Your task to perform on an android device: open app "Google Find My Device" (install if not already installed) Image 0: 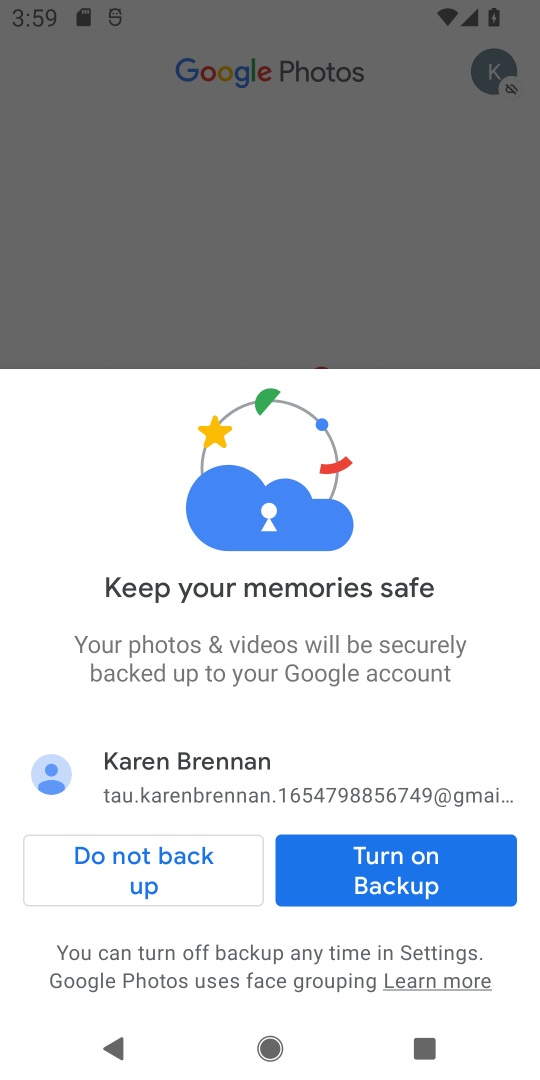
Step 0: press home button
Your task to perform on an android device: open app "Google Find My Device" (install if not already installed) Image 1: 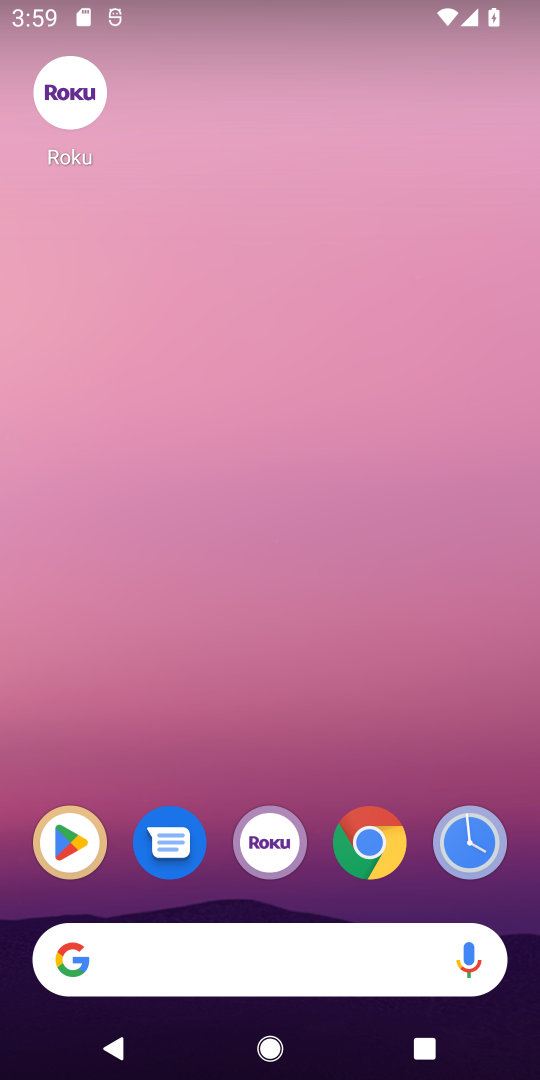
Step 1: drag from (210, 743) to (291, 30)
Your task to perform on an android device: open app "Google Find My Device" (install if not already installed) Image 2: 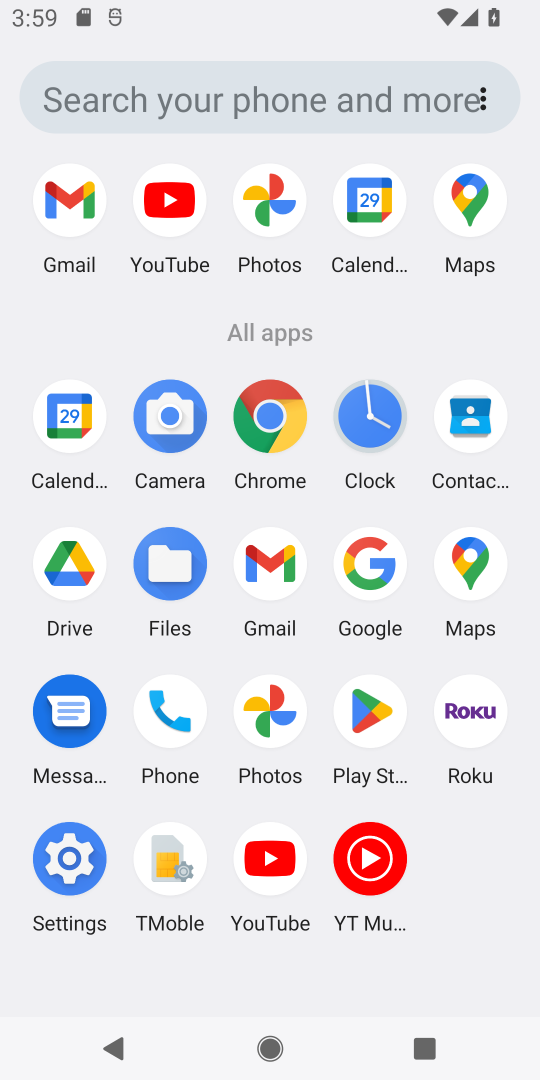
Step 2: click (357, 701)
Your task to perform on an android device: open app "Google Find My Device" (install if not already installed) Image 3: 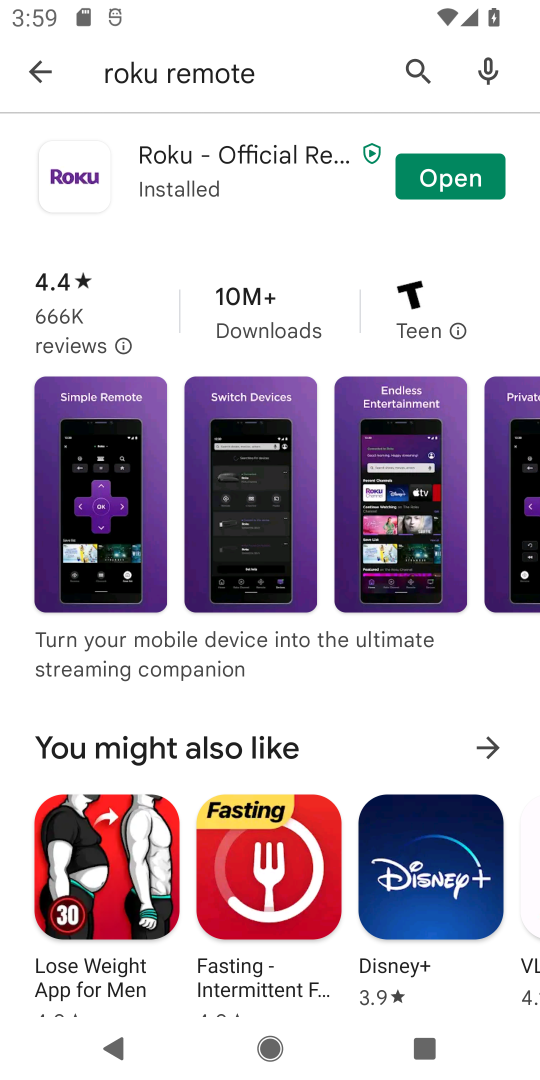
Step 3: click (409, 61)
Your task to perform on an android device: open app "Google Find My Device" (install if not already installed) Image 4: 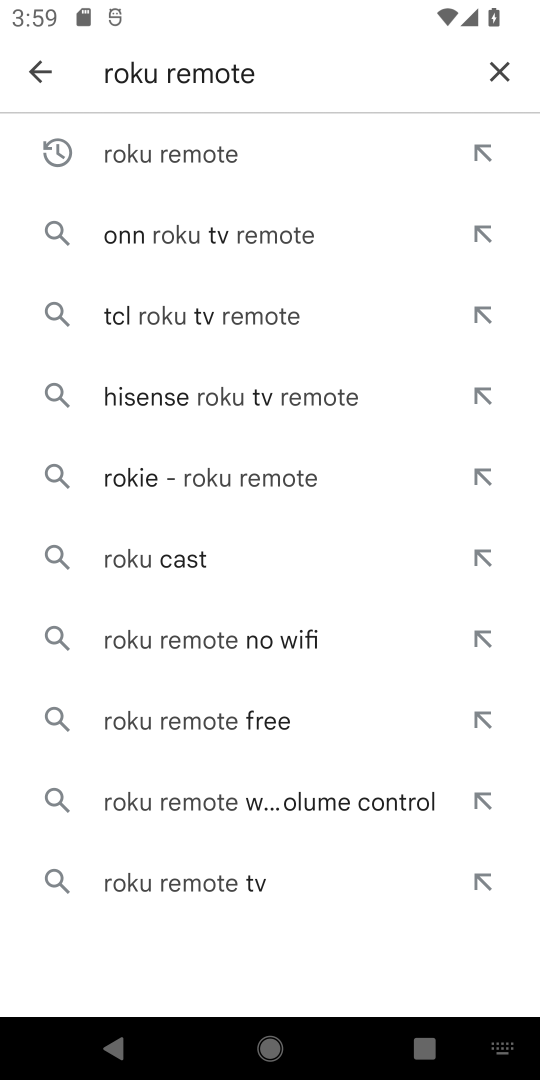
Step 4: click (500, 78)
Your task to perform on an android device: open app "Google Find My Device" (install if not already installed) Image 5: 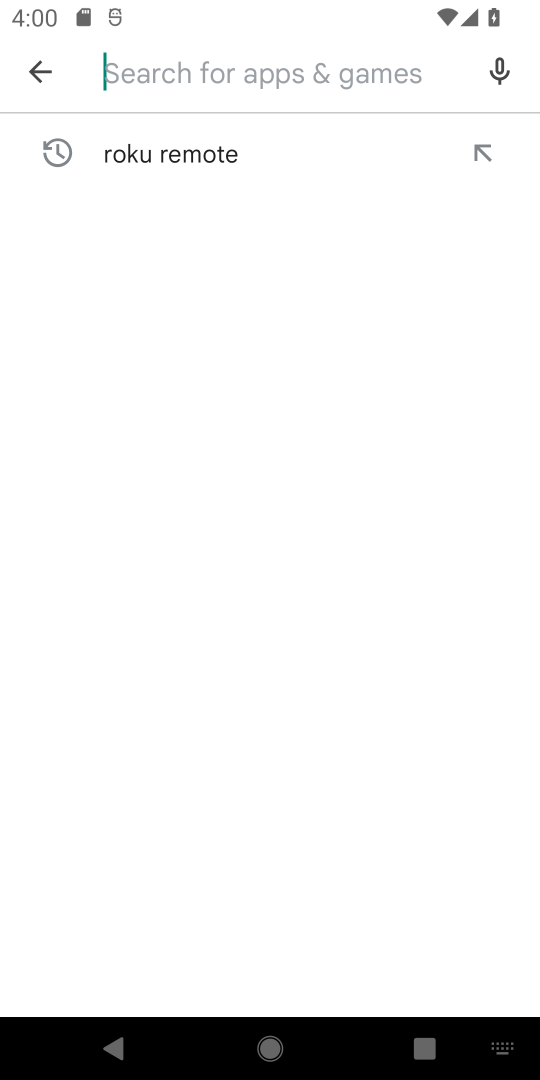
Step 5: click (130, 88)
Your task to perform on an android device: open app "Google Find My Device" (install if not already installed) Image 6: 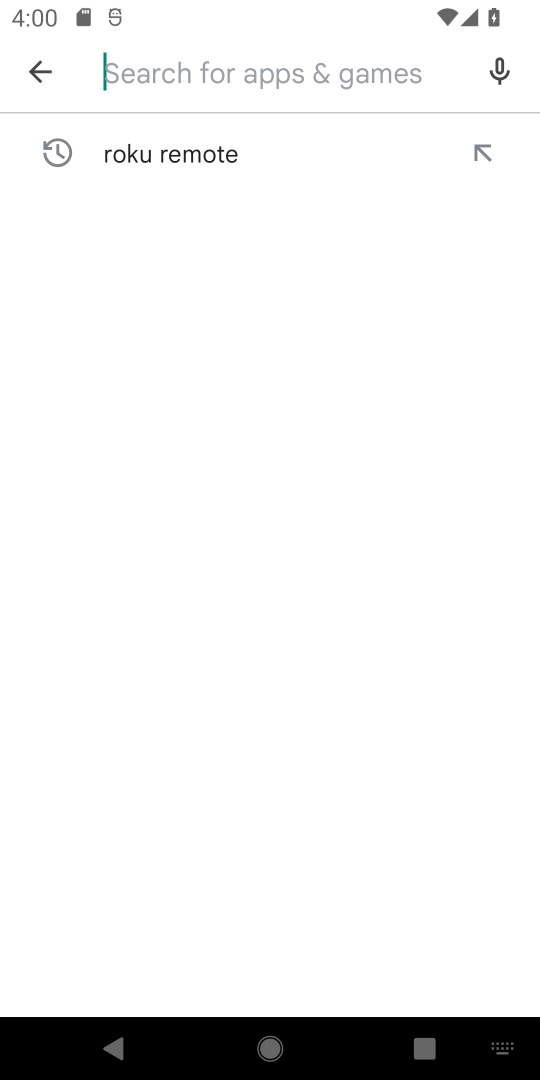
Step 6: click (308, 100)
Your task to perform on an android device: open app "Google Find My Device" (install if not already installed) Image 7: 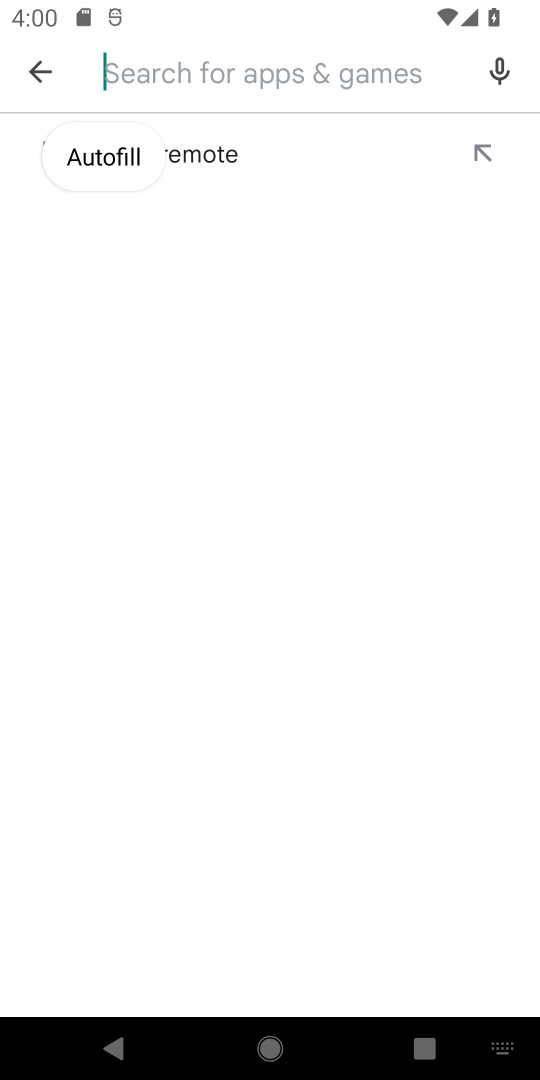
Step 7: click (266, 67)
Your task to perform on an android device: open app "Google Find My Device" (install if not already installed) Image 8: 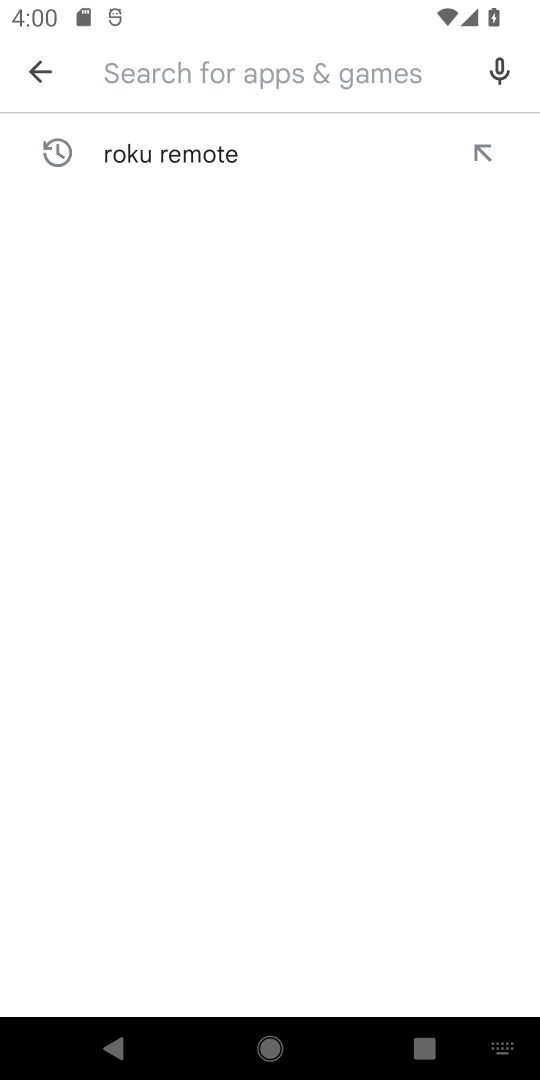
Step 8: type "Google Find My Device"
Your task to perform on an android device: open app "Google Find My Device" (install if not already installed) Image 9: 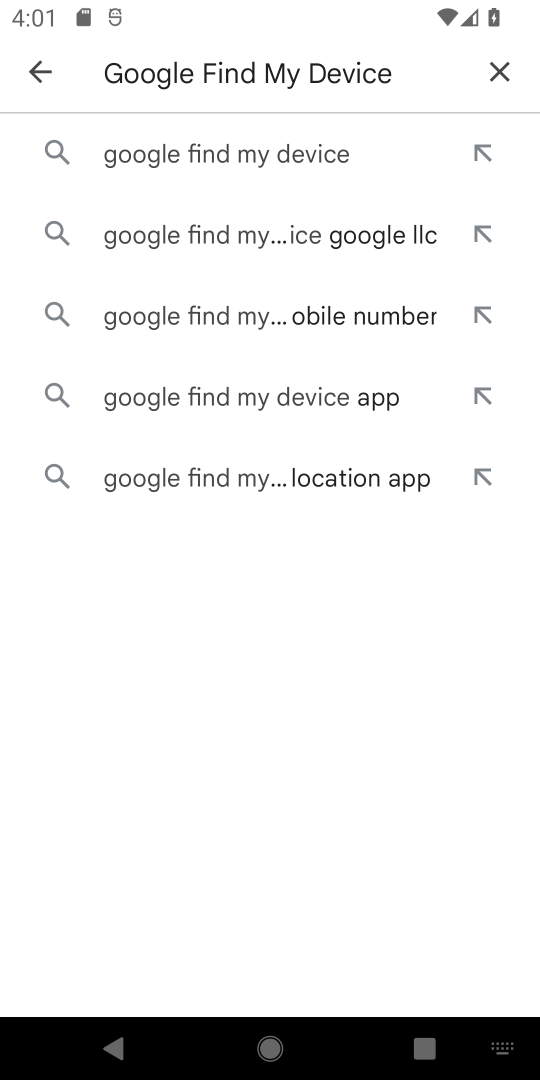
Step 9: click (278, 152)
Your task to perform on an android device: open app "Google Find My Device" (install if not already installed) Image 10: 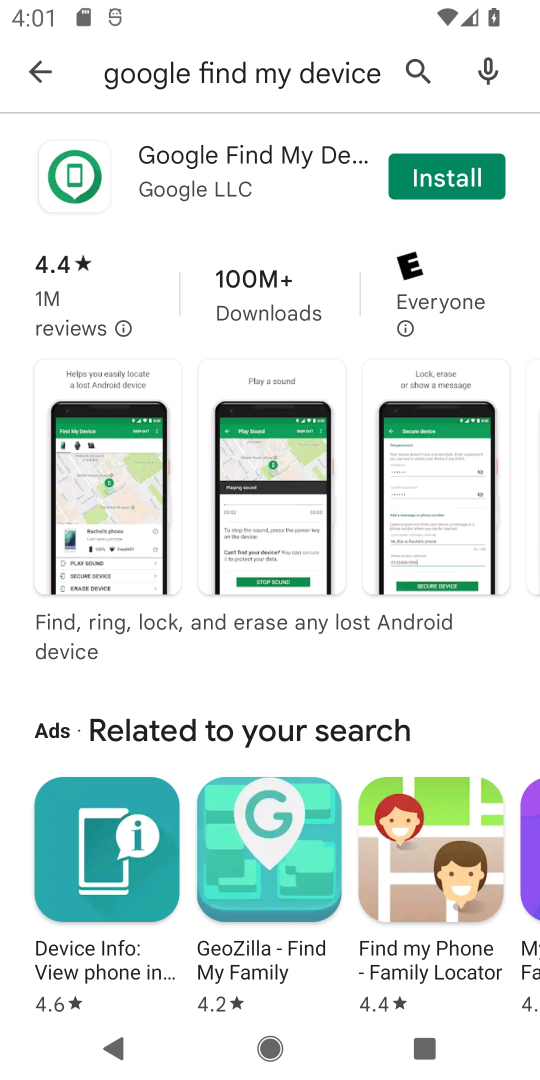
Step 10: click (449, 174)
Your task to perform on an android device: open app "Google Find My Device" (install if not already installed) Image 11: 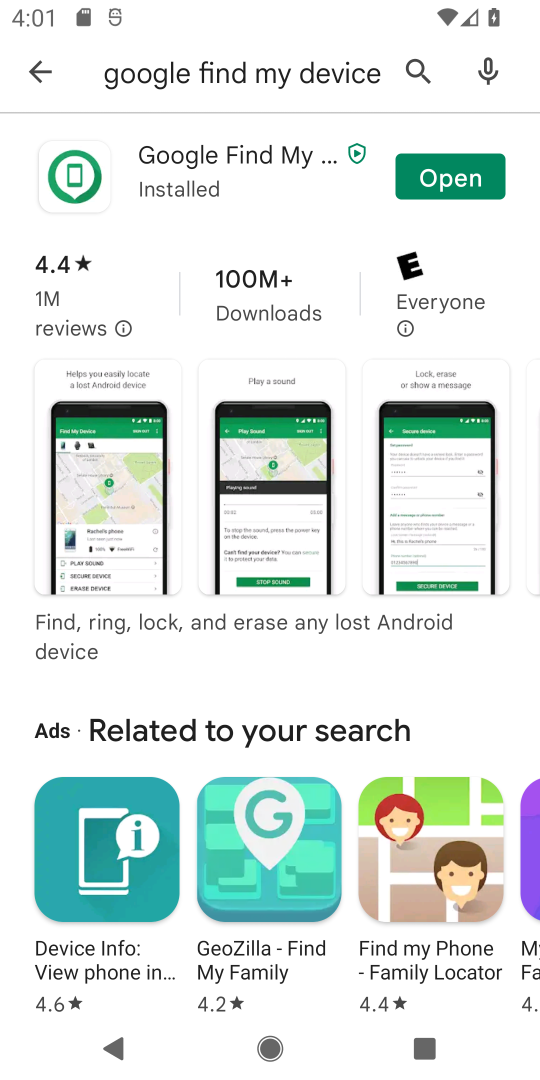
Step 11: click (449, 176)
Your task to perform on an android device: open app "Google Find My Device" (install if not already installed) Image 12: 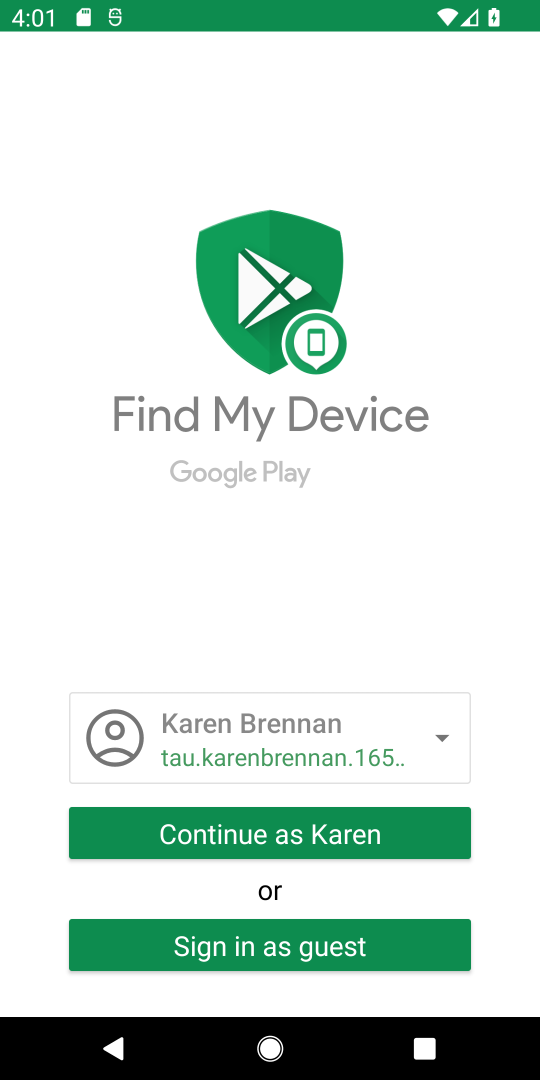
Step 12: task complete